Your task to perform on an android device: Open Reddit.com Image 0: 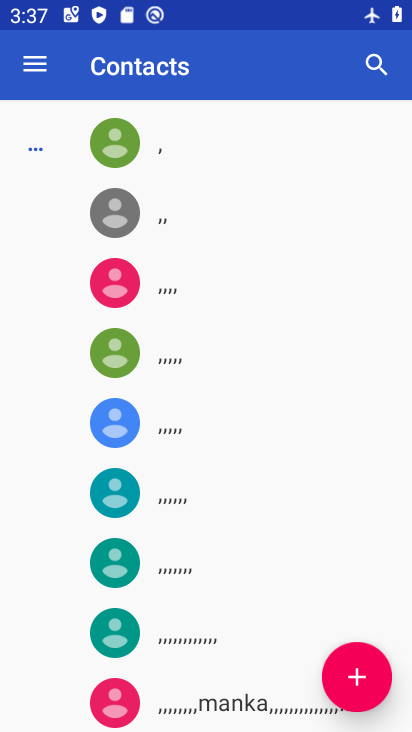
Step 0: press home button
Your task to perform on an android device: Open Reddit.com Image 1: 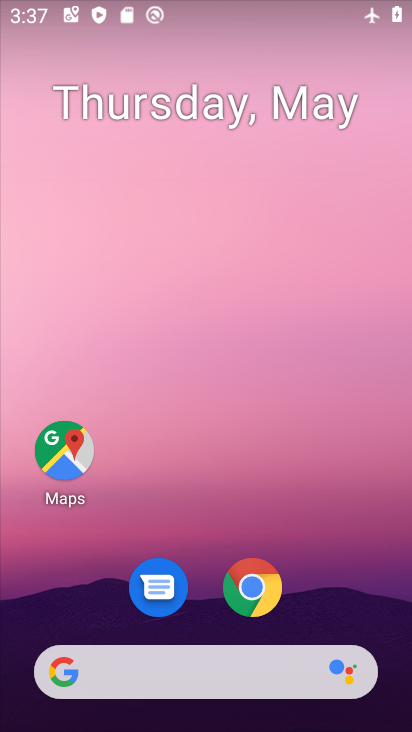
Step 1: click (264, 583)
Your task to perform on an android device: Open Reddit.com Image 2: 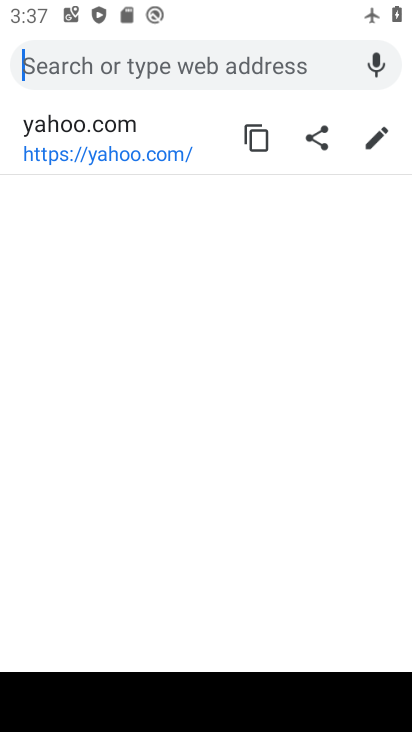
Step 2: task complete